Your task to perform on an android device: add a contact in the contacts app Image 0: 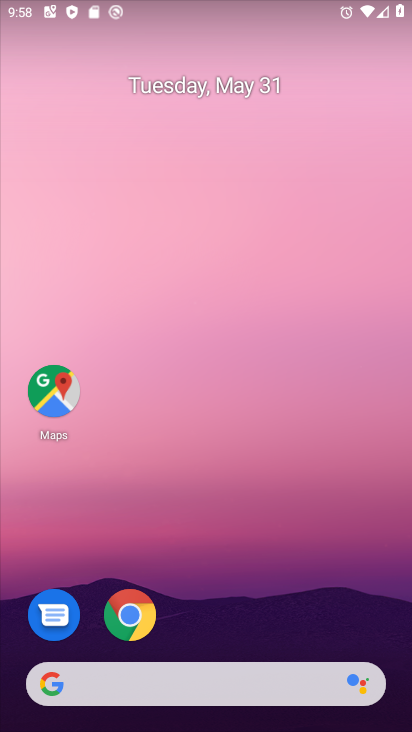
Step 0: drag from (340, 615) to (357, 116)
Your task to perform on an android device: add a contact in the contacts app Image 1: 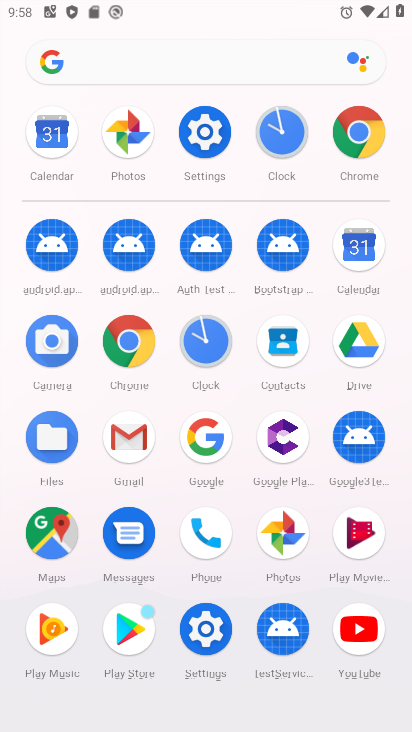
Step 1: click (197, 531)
Your task to perform on an android device: add a contact in the contacts app Image 2: 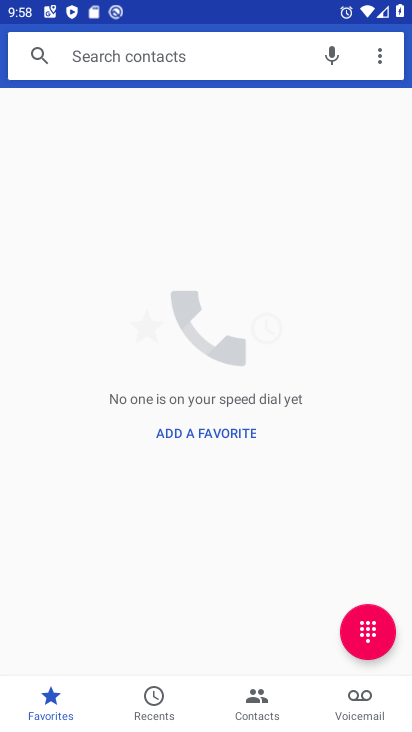
Step 2: click (251, 728)
Your task to perform on an android device: add a contact in the contacts app Image 3: 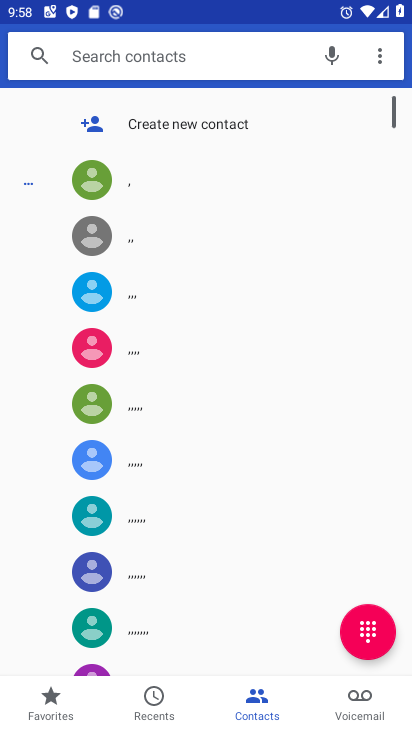
Step 3: click (182, 125)
Your task to perform on an android device: add a contact in the contacts app Image 4: 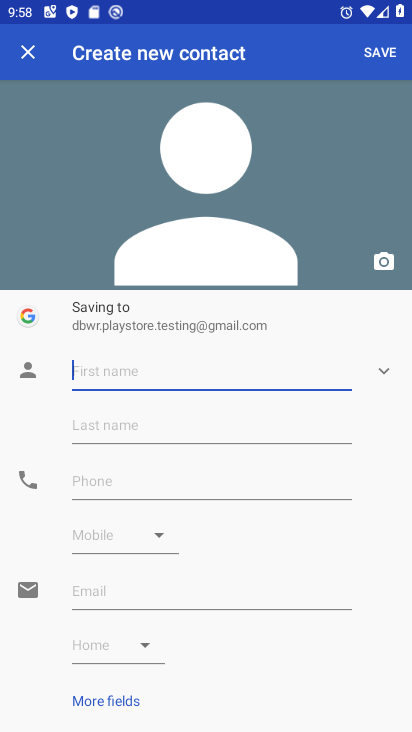
Step 4: type "tryr"
Your task to perform on an android device: add a contact in the contacts app Image 5: 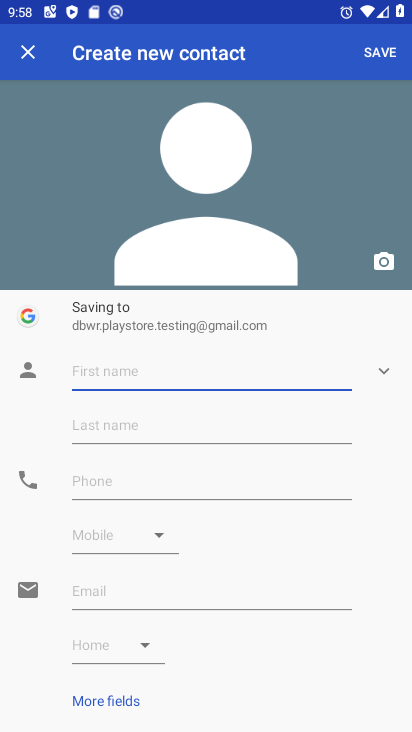
Step 5: click (99, 472)
Your task to perform on an android device: add a contact in the contacts app Image 6: 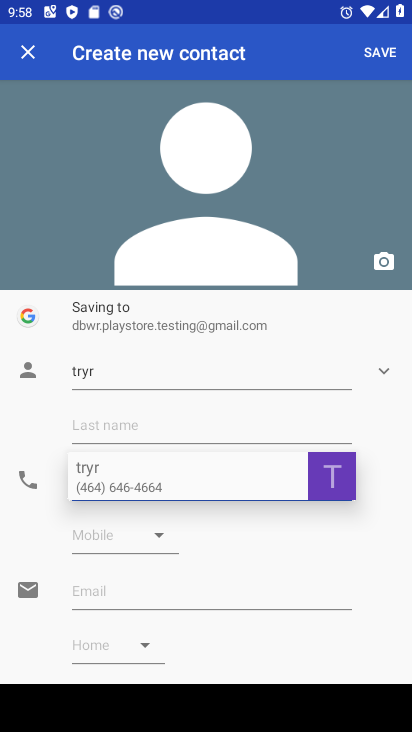
Step 6: type "54646464"
Your task to perform on an android device: add a contact in the contacts app Image 7: 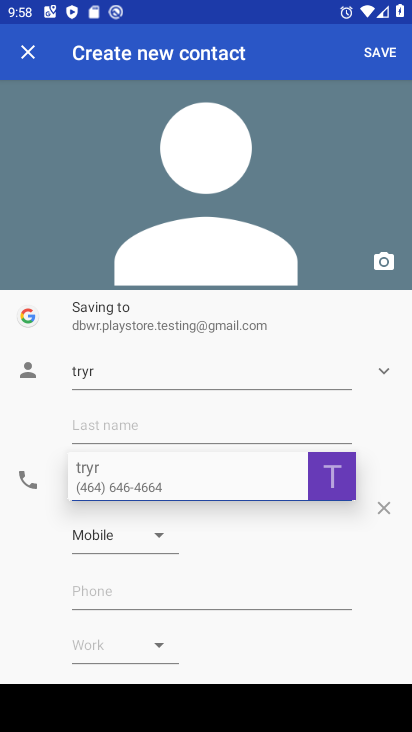
Step 7: click (196, 462)
Your task to perform on an android device: add a contact in the contacts app Image 8: 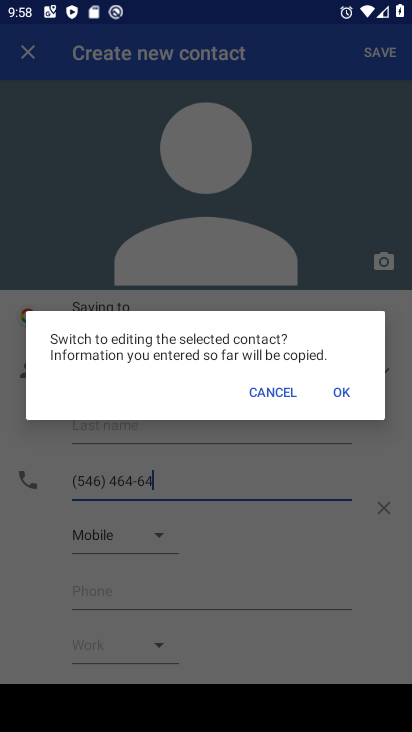
Step 8: click (336, 395)
Your task to perform on an android device: add a contact in the contacts app Image 9: 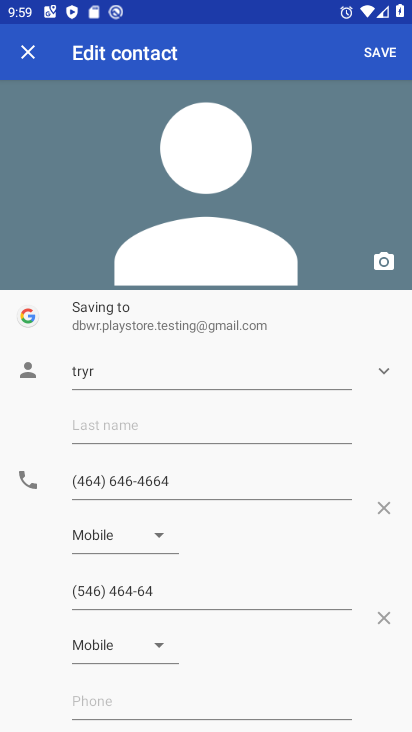
Step 9: click (371, 59)
Your task to perform on an android device: add a contact in the contacts app Image 10: 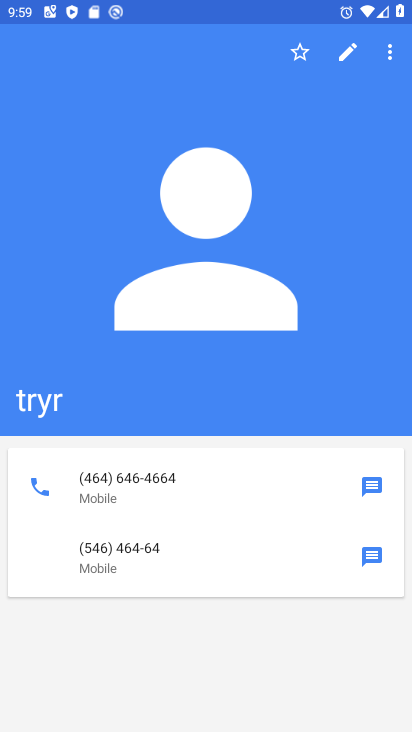
Step 10: task complete